Your task to perform on an android device: turn on airplane mode Image 0: 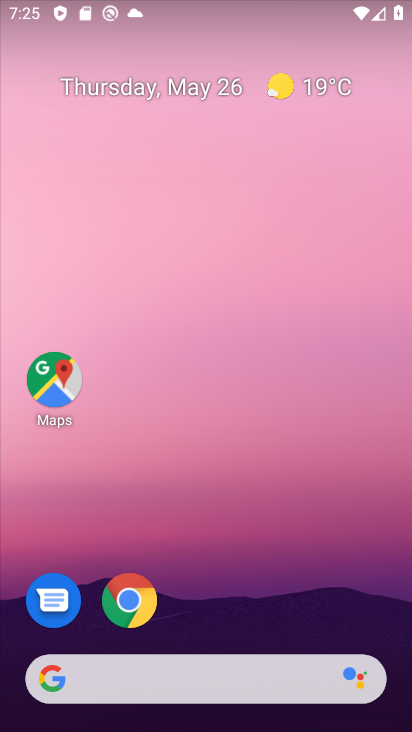
Step 0: press home button
Your task to perform on an android device: turn on airplane mode Image 1: 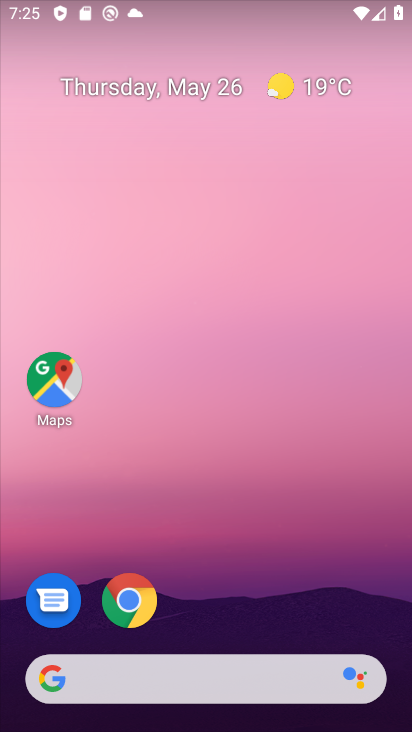
Step 1: drag from (211, 20) to (211, 340)
Your task to perform on an android device: turn on airplane mode Image 2: 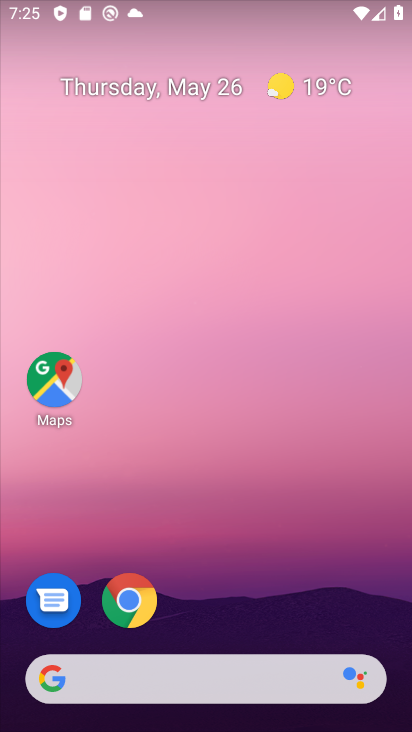
Step 2: drag from (204, 10) to (206, 349)
Your task to perform on an android device: turn on airplane mode Image 3: 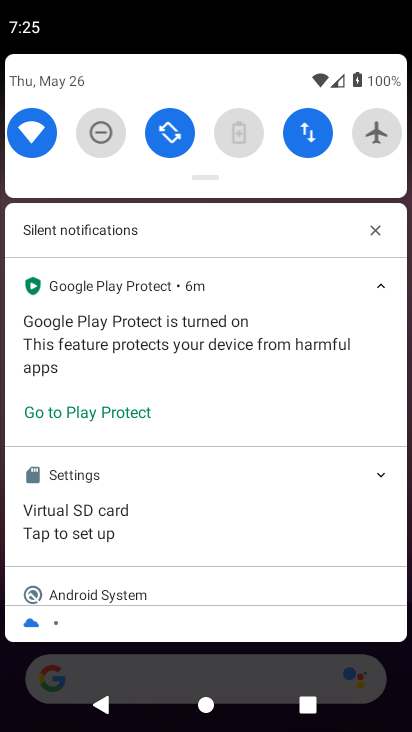
Step 3: drag from (209, 180) to (189, 530)
Your task to perform on an android device: turn on airplane mode Image 4: 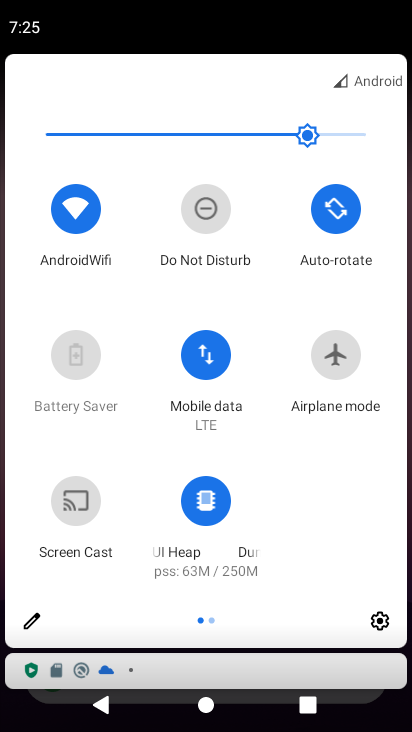
Step 4: click (329, 348)
Your task to perform on an android device: turn on airplane mode Image 5: 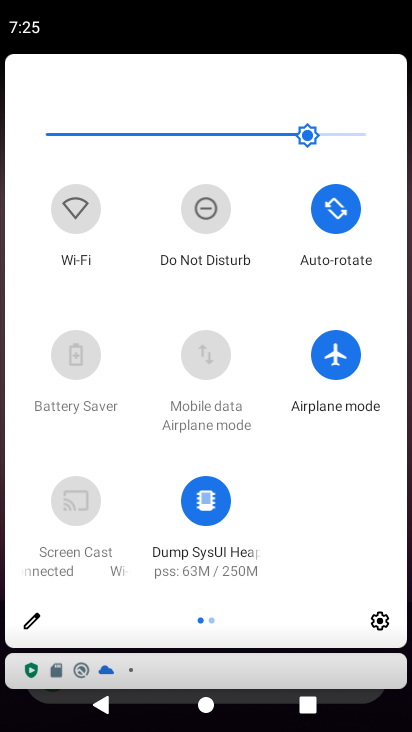
Step 5: task complete